Your task to perform on an android device: toggle notification dots Image 0: 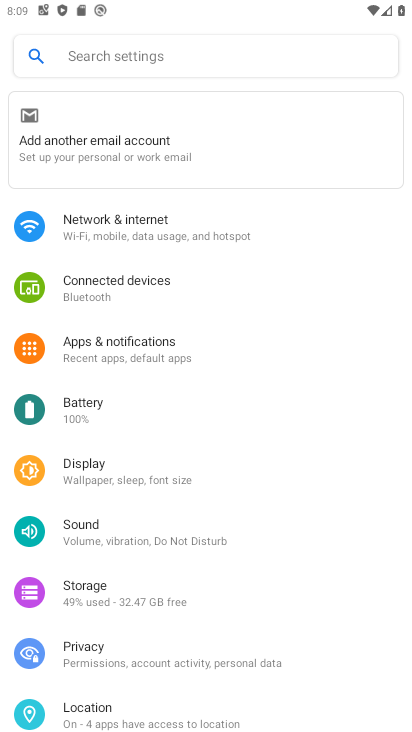
Step 0: click (181, 356)
Your task to perform on an android device: toggle notification dots Image 1: 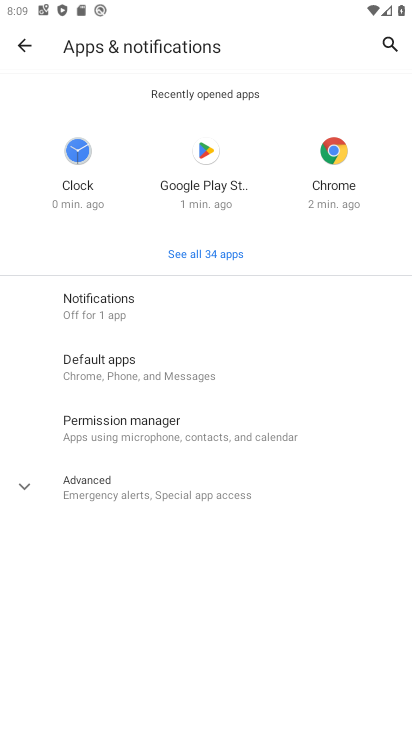
Step 1: click (124, 481)
Your task to perform on an android device: toggle notification dots Image 2: 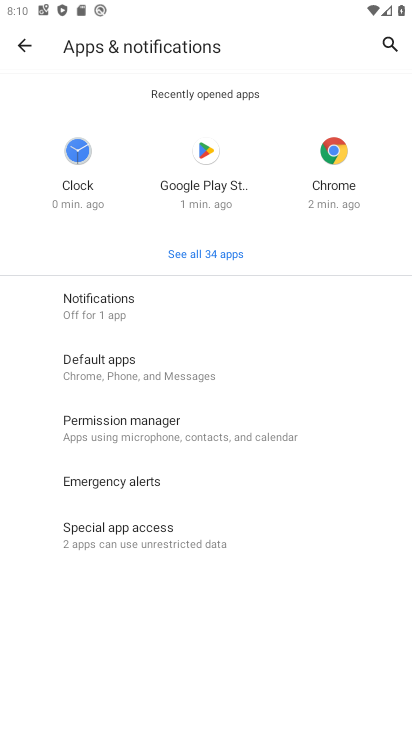
Step 2: click (166, 317)
Your task to perform on an android device: toggle notification dots Image 3: 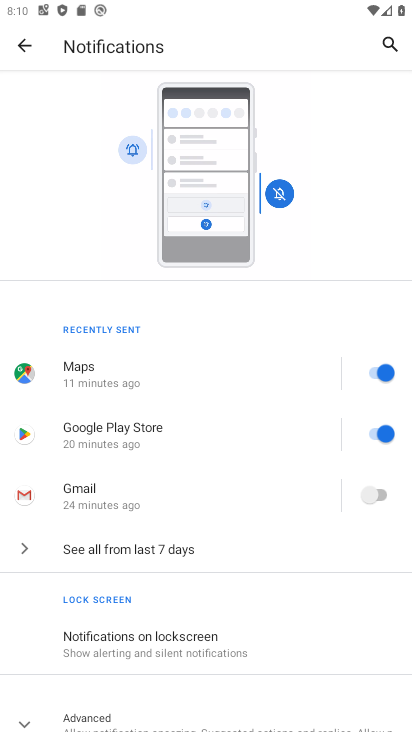
Step 3: click (381, 496)
Your task to perform on an android device: toggle notification dots Image 4: 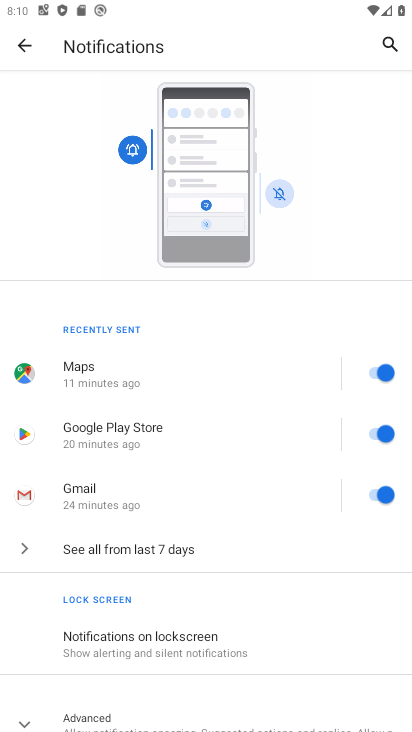
Step 4: task complete